Your task to perform on an android device: Toggle the flashlight Image 0: 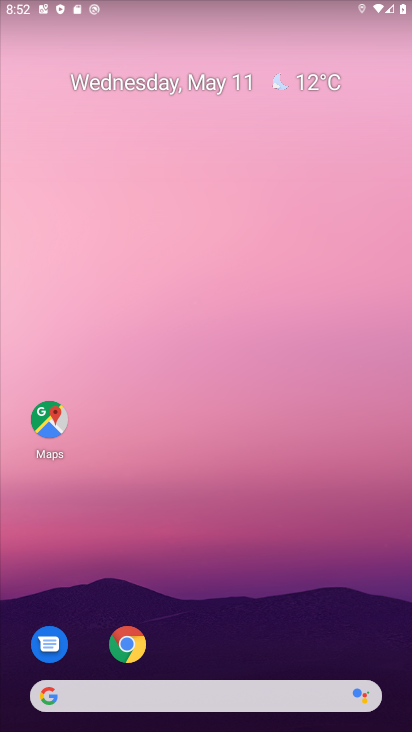
Step 0: drag from (172, 545) to (135, 158)
Your task to perform on an android device: Toggle the flashlight Image 1: 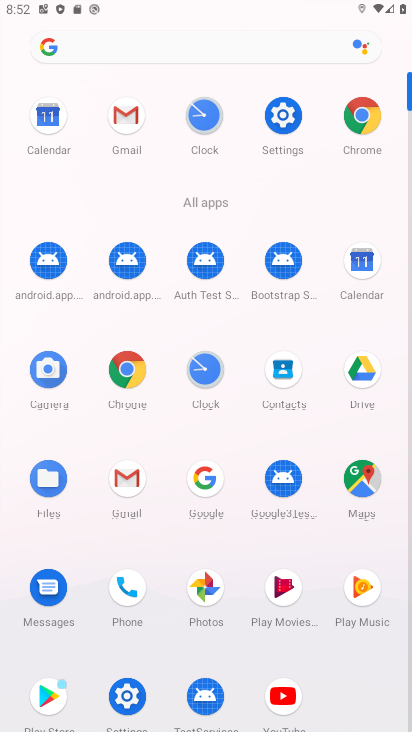
Step 1: click (293, 117)
Your task to perform on an android device: Toggle the flashlight Image 2: 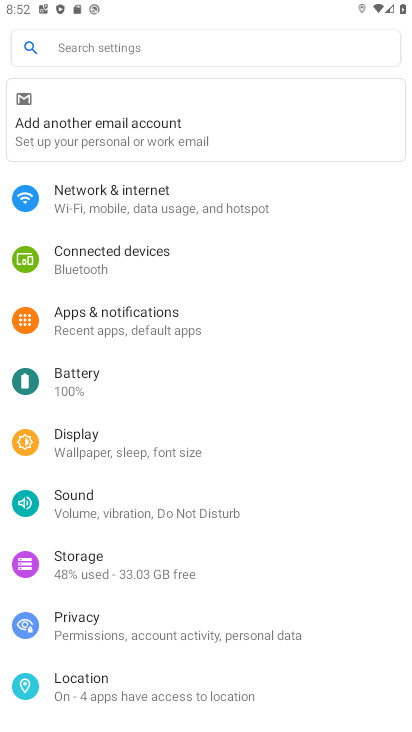
Step 2: click (127, 45)
Your task to perform on an android device: Toggle the flashlight Image 3: 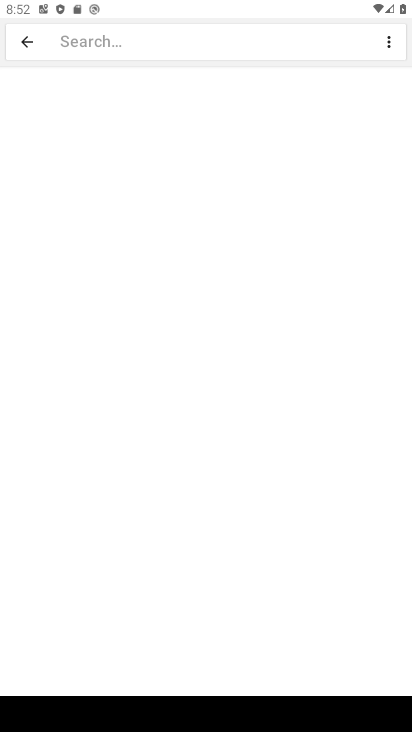
Step 3: type "flashlight"
Your task to perform on an android device: Toggle the flashlight Image 4: 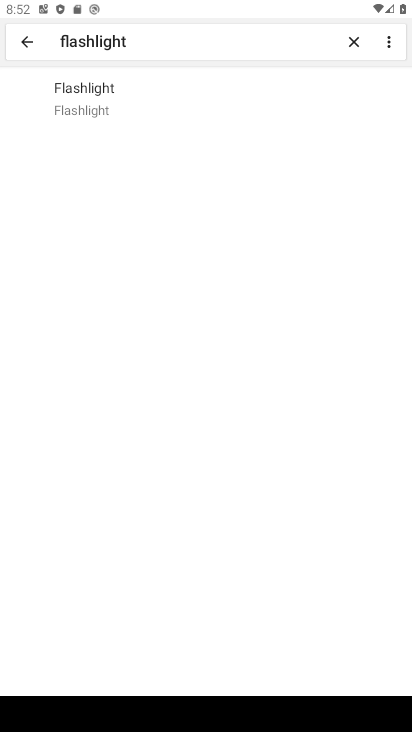
Step 4: click (60, 102)
Your task to perform on an android device: Toggle the flashlight Image 5: 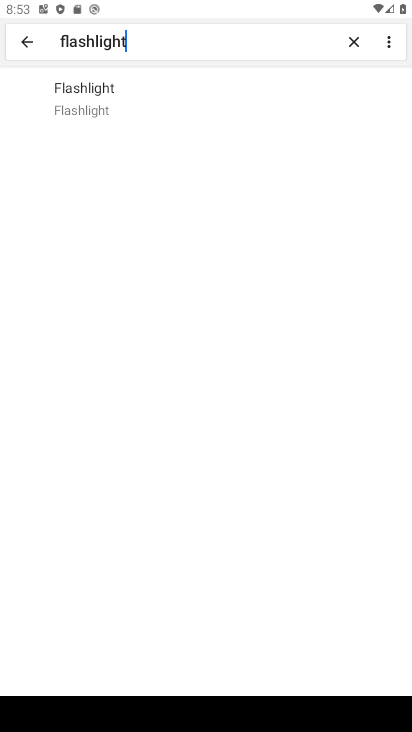
Step 5: click (109, 98)
Your task to perform on an android device: Toggle the flashlight Image 6: 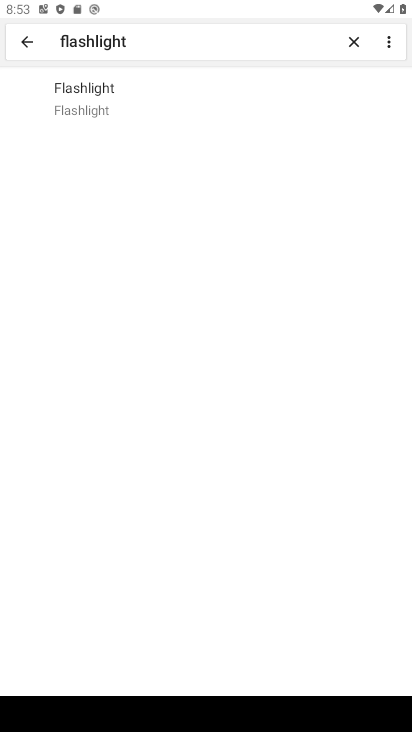
Step 6: click (109, 98)
Your task to perform on an android device: Toggle the flashlight Image 7: 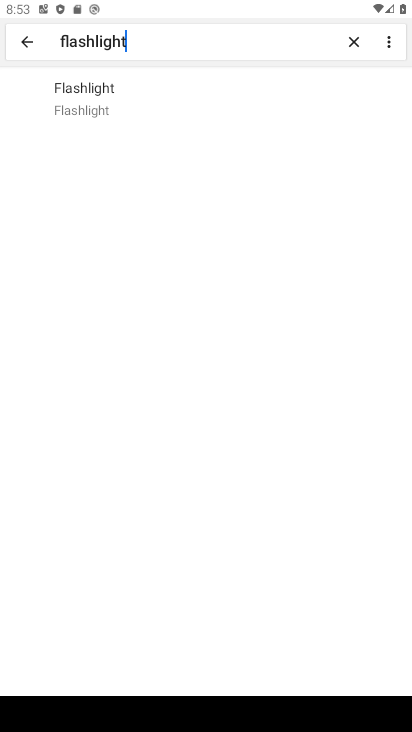
Step 7: task complete